Your task to perform on an android device: open app "Booking.com: Hotels and more" (install if not already installed) and enter user name: "misting@outlook.com" and password: "blandly" Image 0: 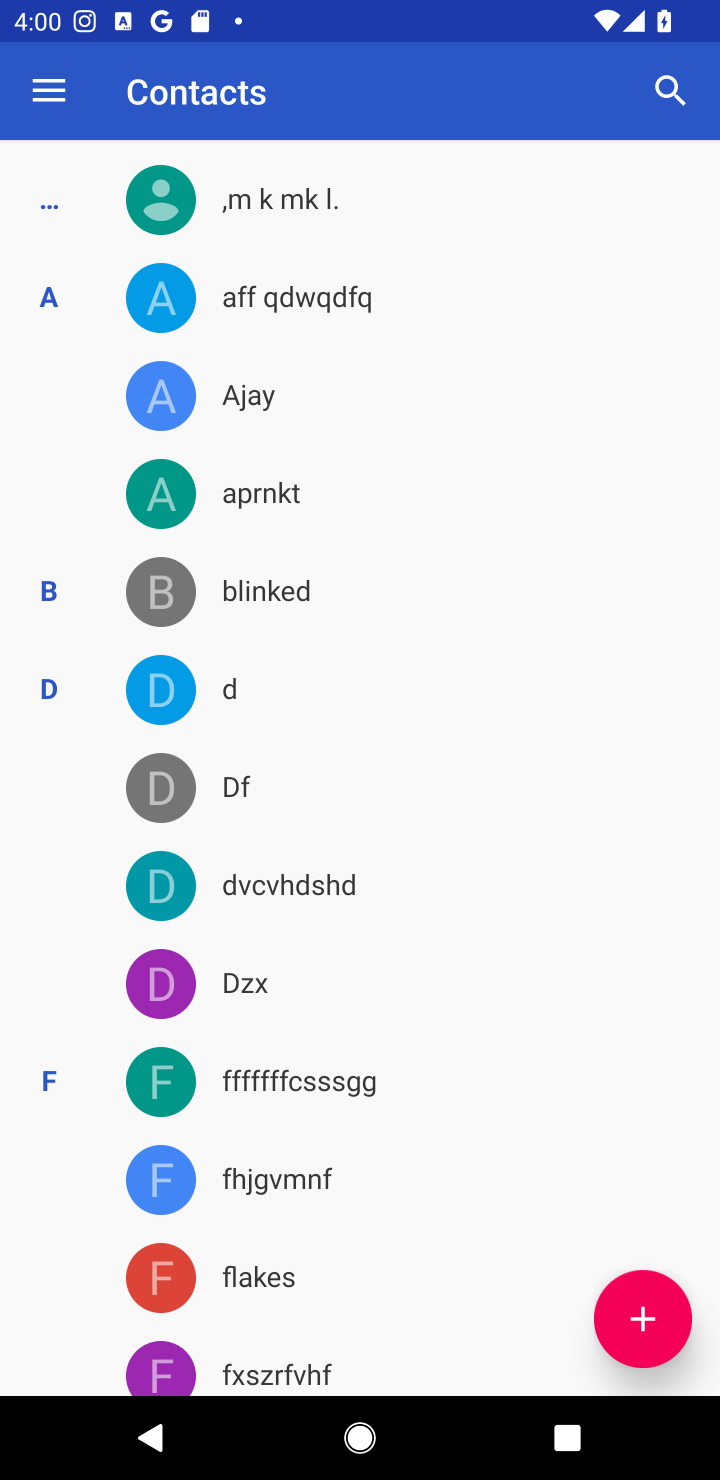
Step 0: press home button
Your task to perform on an android device: open app "Booking.com: Hotels and more" (install if not already installed) and enter user name: "misting@outlook.com" and password: "blandly" Image 1: 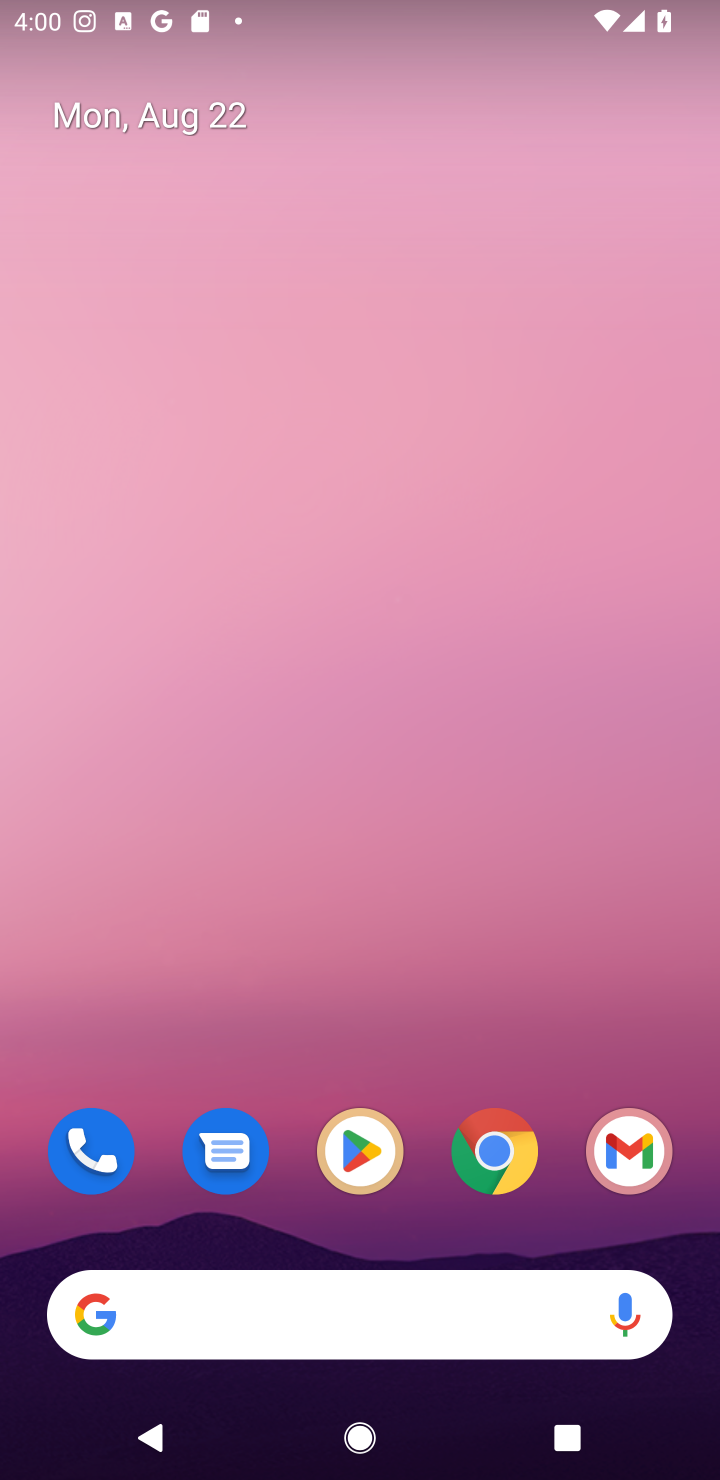
Step 1: click (362, 1153)
Your task to perform on an android device: open app "Booking.com: Hotels and more" (install if not already installed) and enter user name: "misting@outlook.com" and password: "blandly" Image 2: 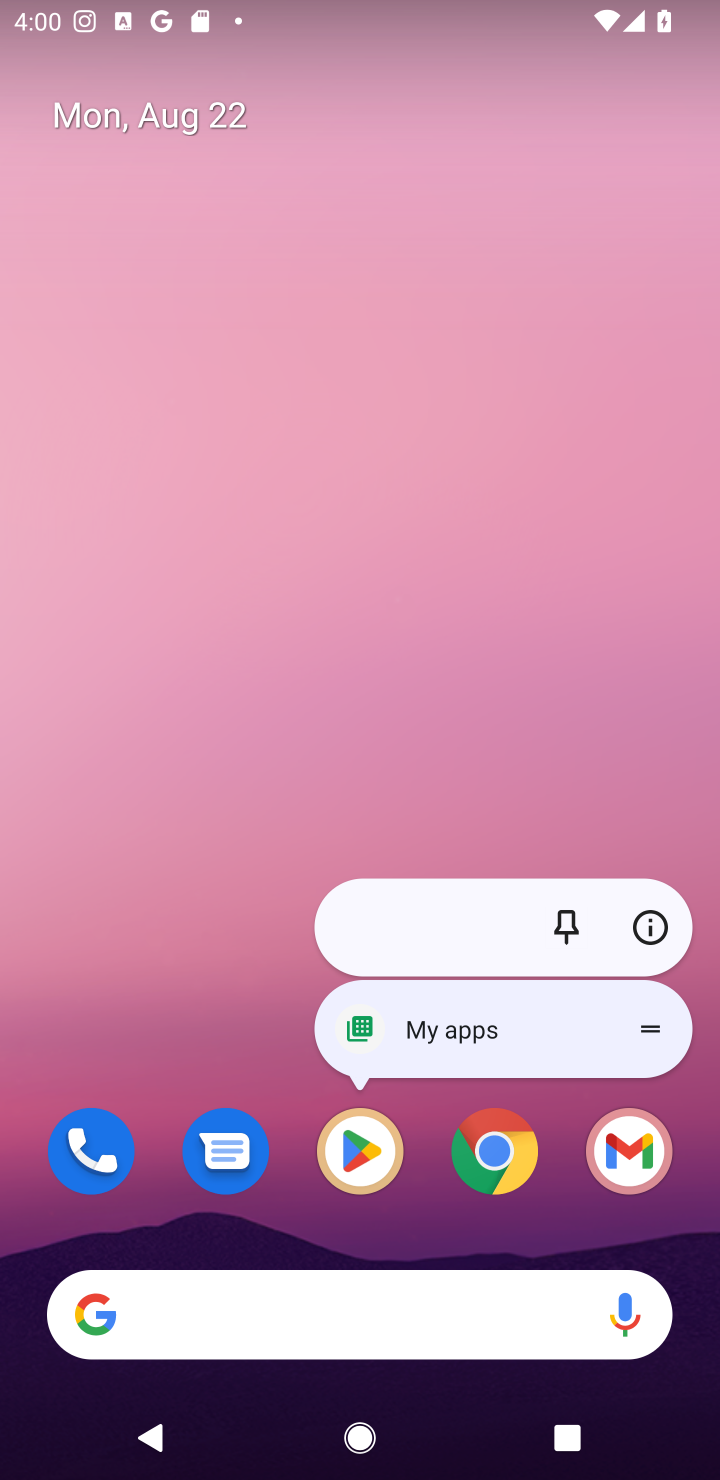
Step 2: click (353, 1157)
Your task to perform on an android device: open app "Booking.com: Hotels and more" (install if not already installed) and enter user name: "misting@outlook.com" and password: "blandly" Image 3: 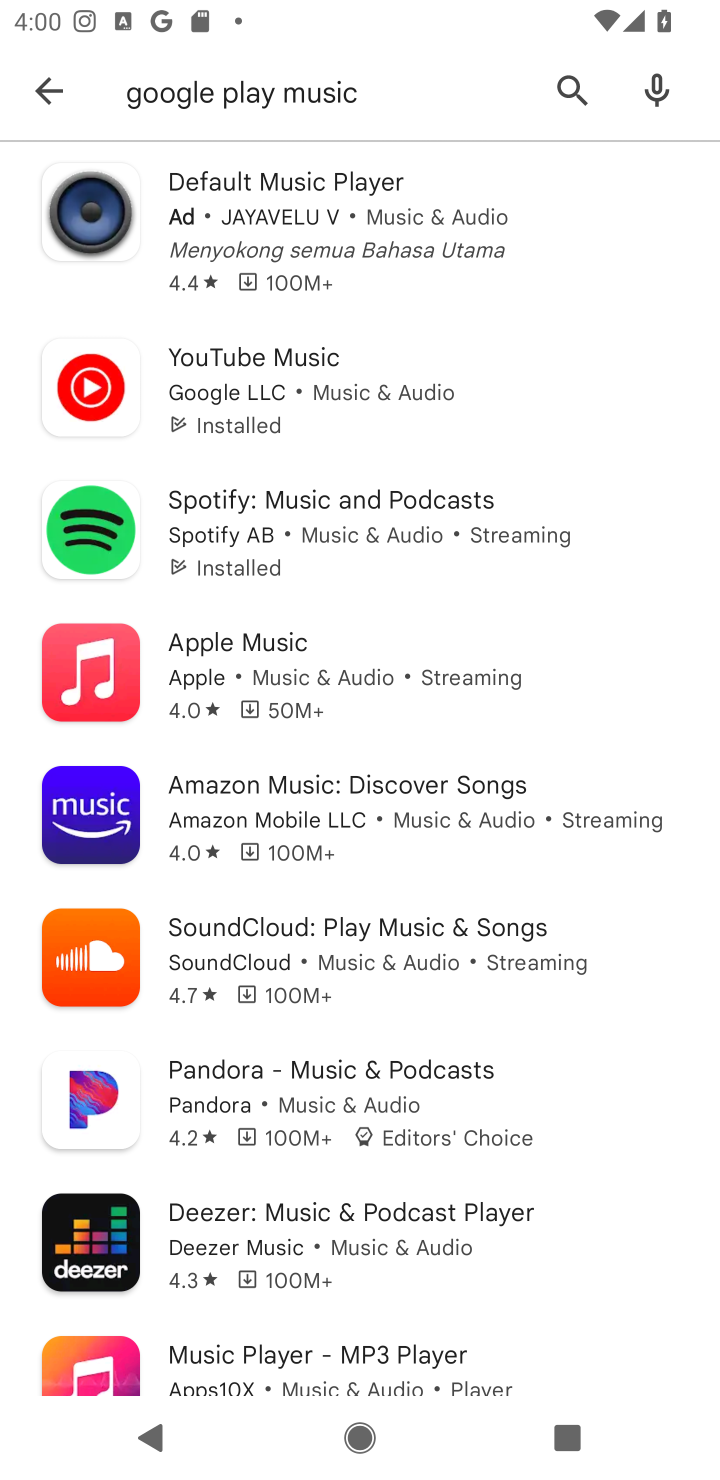
Step 3: click (578, 65)
Your task to perform on an android device: open app "Booking.com: Hotels and more" (install if not already installed) and enter user name: "misting@outlook.com" and password: "blandly" Image 4: 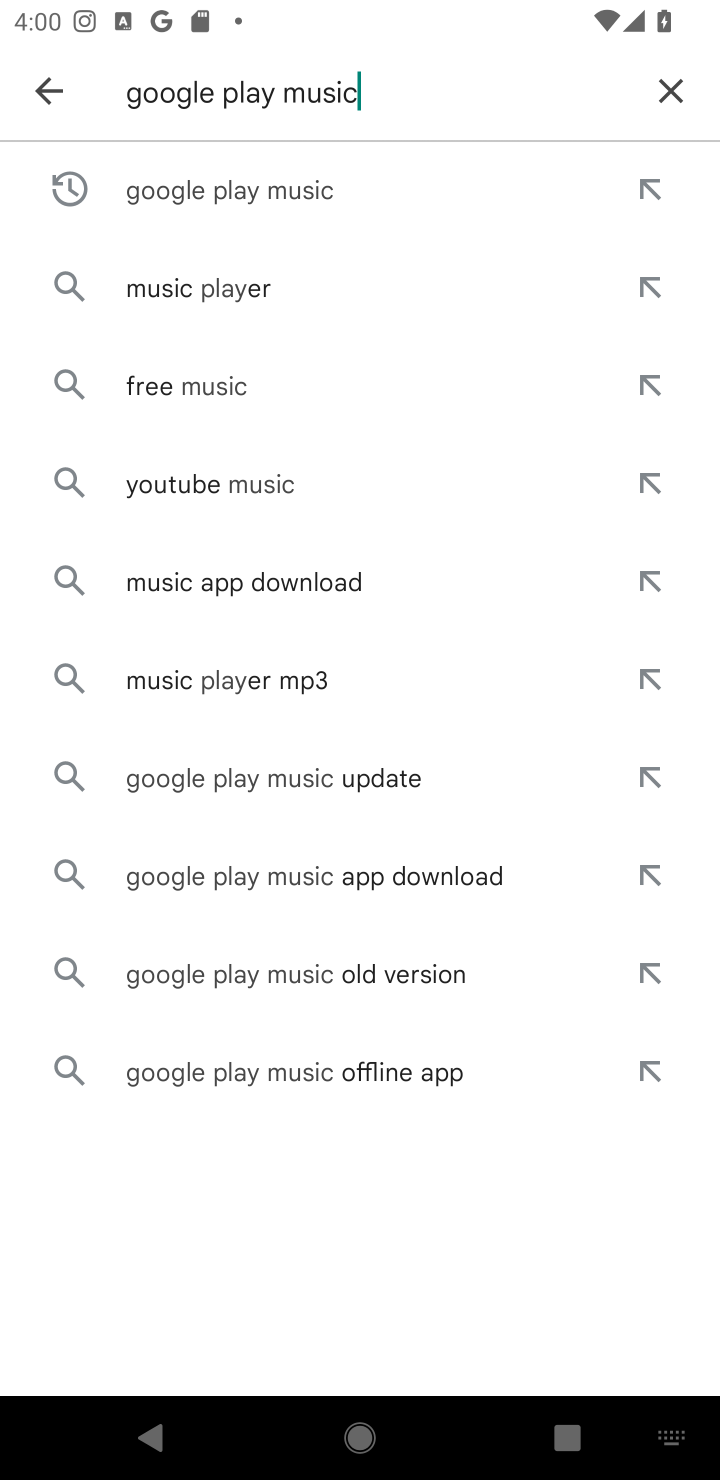
Step 4: click (663, 85)
Your task to perform on an android device: open app "Booking.com: Hotels and more" (install if not already installed) and enter user name: "misting@outlook.com" and password: "blandly" Image 5: 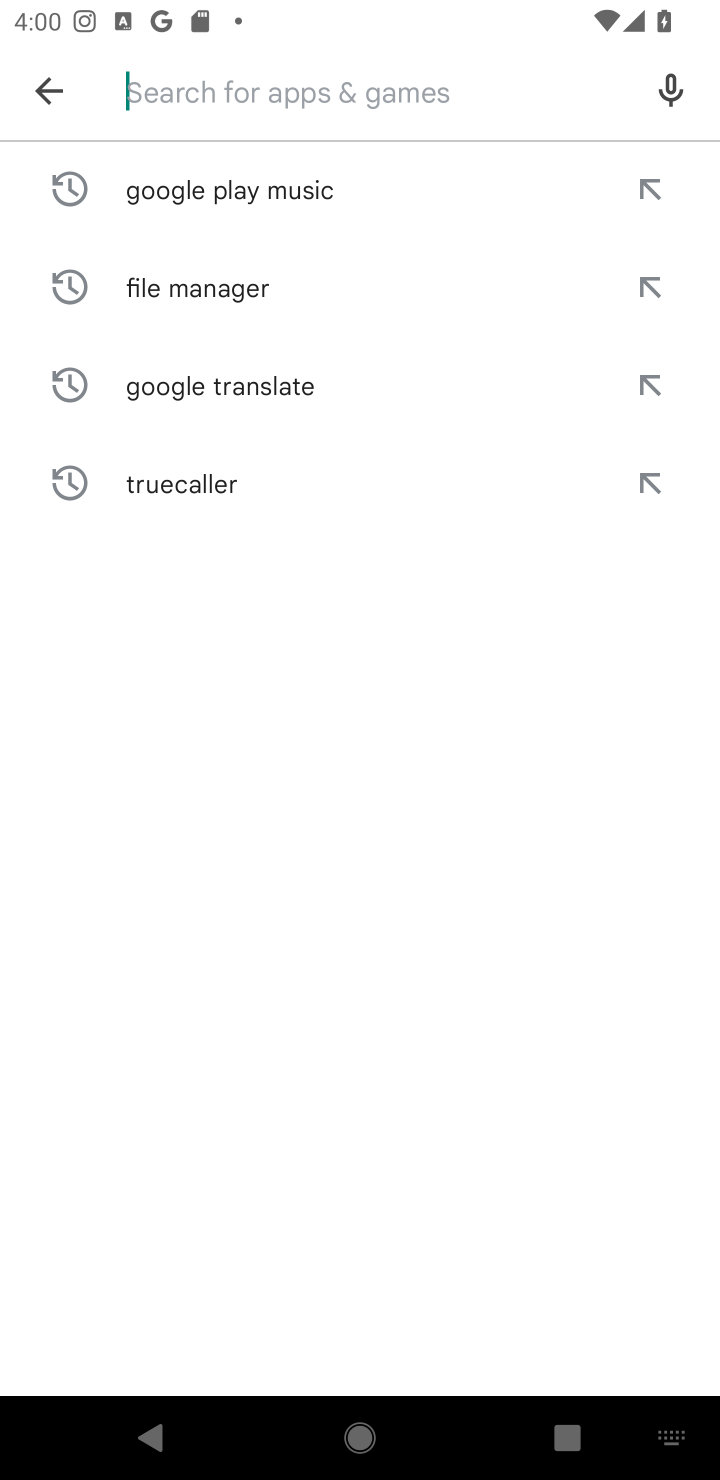
Step 5: type "Booking.com: Hotels and more"
Your task to perform on an android device: open app "Booking.com: Hotels and more" (install if not already installed) and enter user name: "misting@outlook.com" and password: "blandly" Image 6: 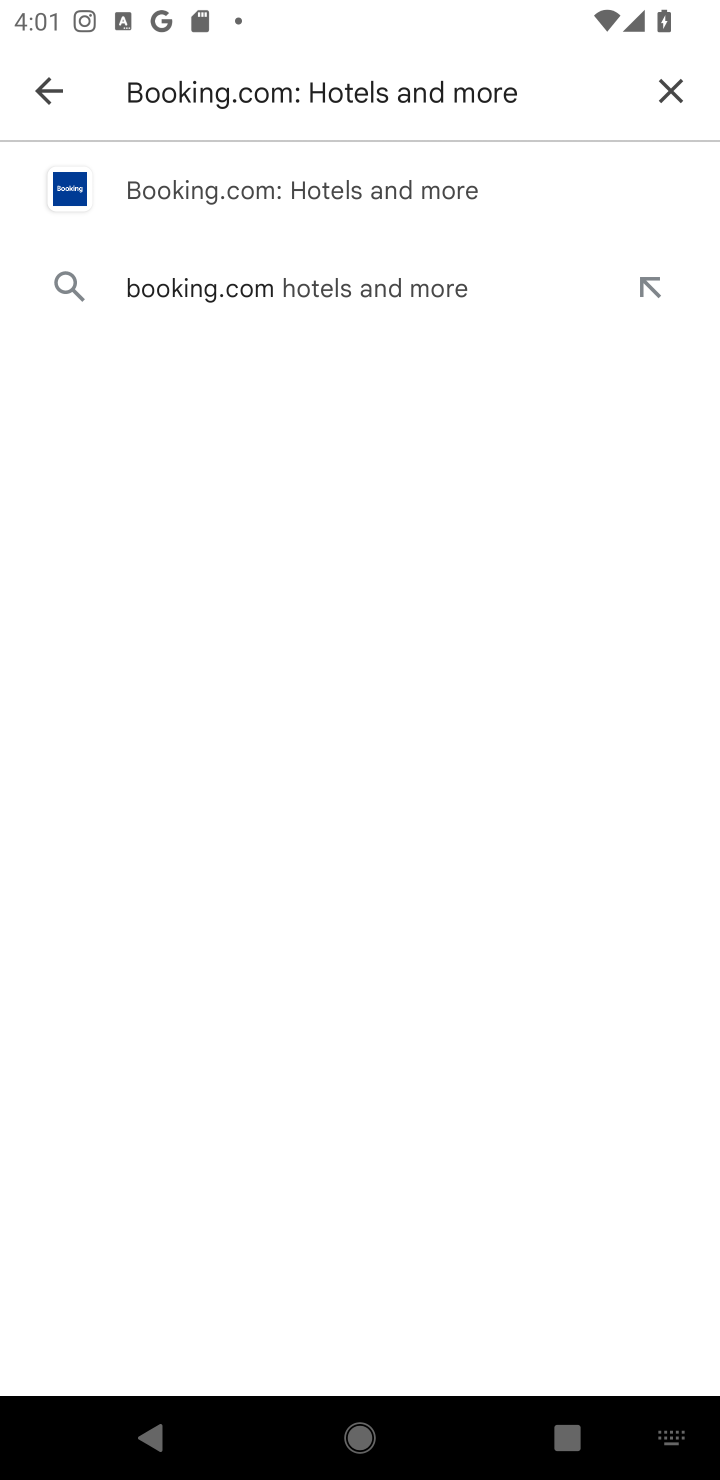
Step 6: click (302, 190)
Your task to perform on an android device: open app "Booking.com: Hotels and more" (install if not already installed) and enter user name: "misting@outlook.com" and password: "blandly" Image 7: 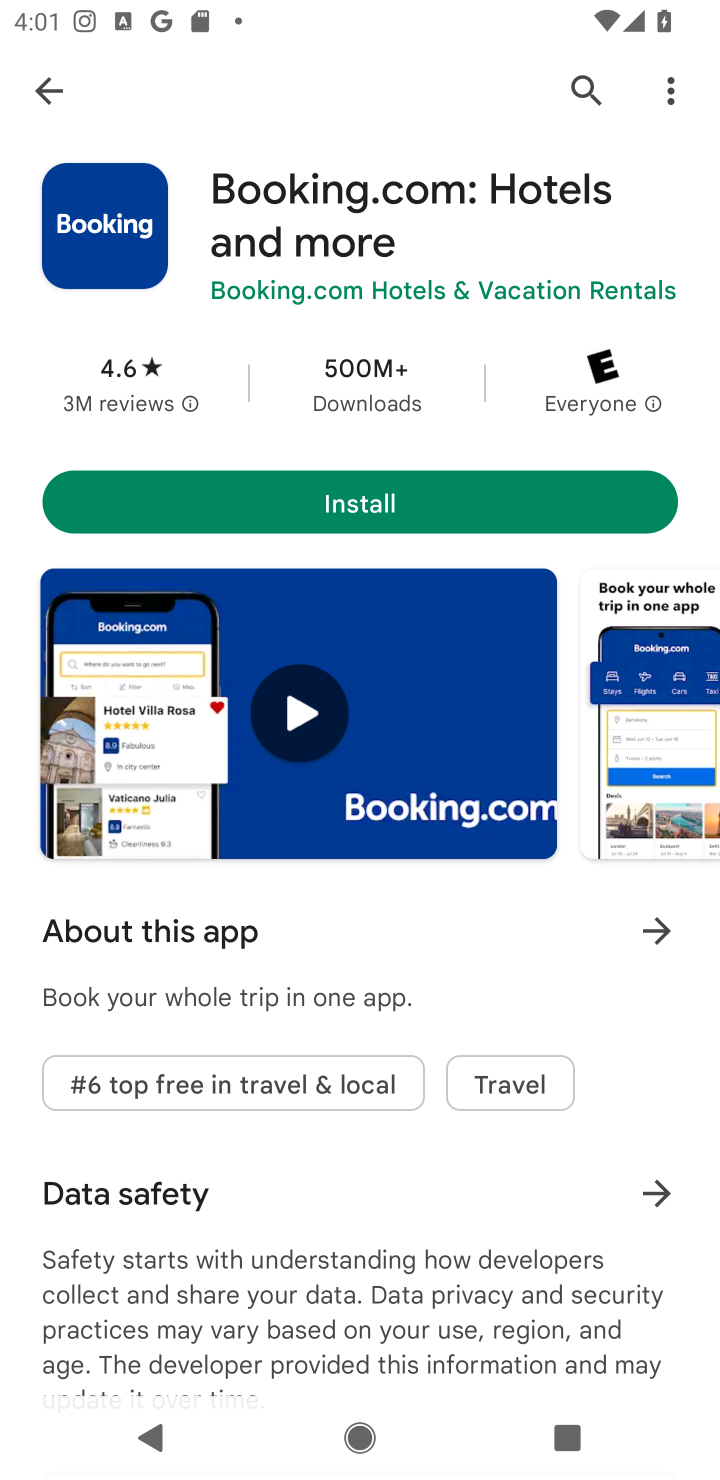
Step 7: click (340, 497)
Your task to perform on an android device: open app "Booking.com: Hotels and more" (install if not already installed) and enter user name: "misting@outlook.com" and password: "blandly" Image 8: 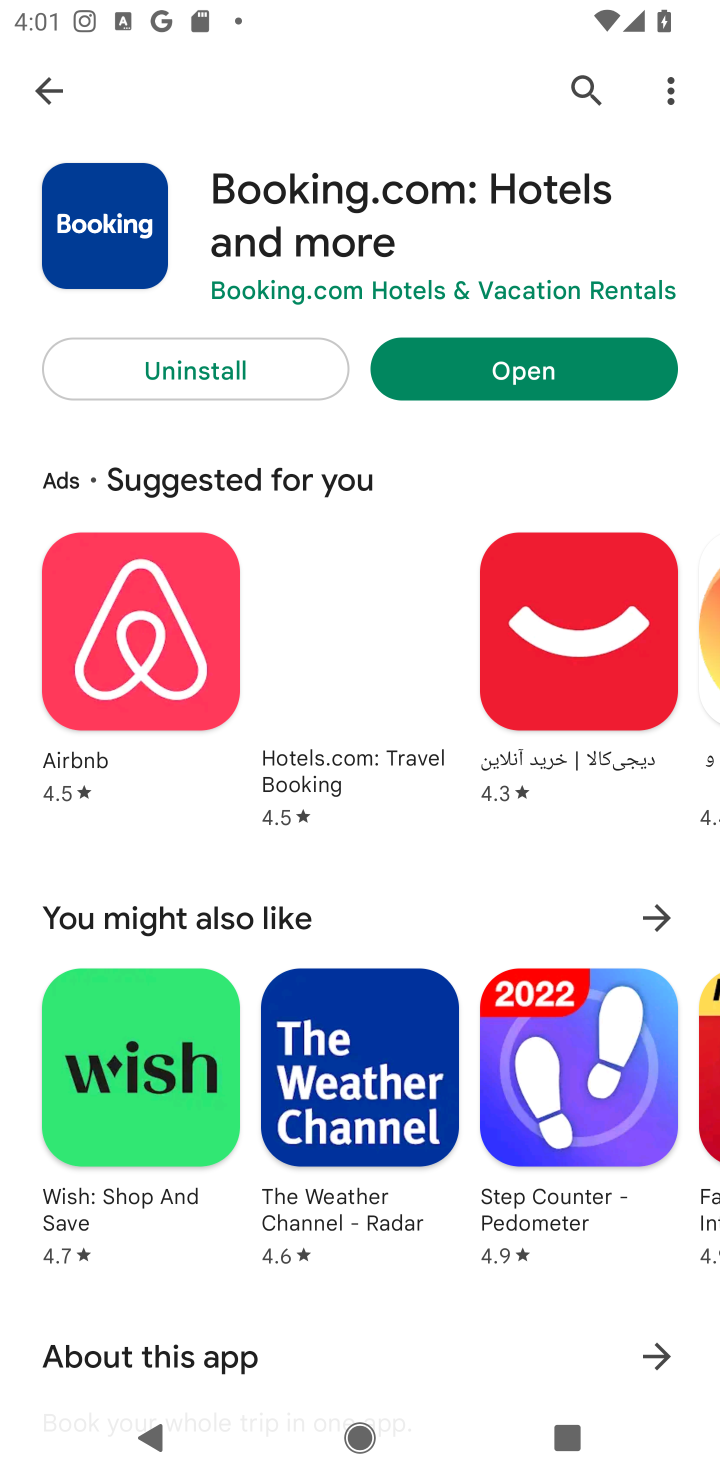
Step 8: click (487, 364)
Your task to perform on an android device: open app "Booking.com: Hotels and more" (install if not already installed) and enter user name: "misting@outlook.com" and password: "blandly" Image 9: 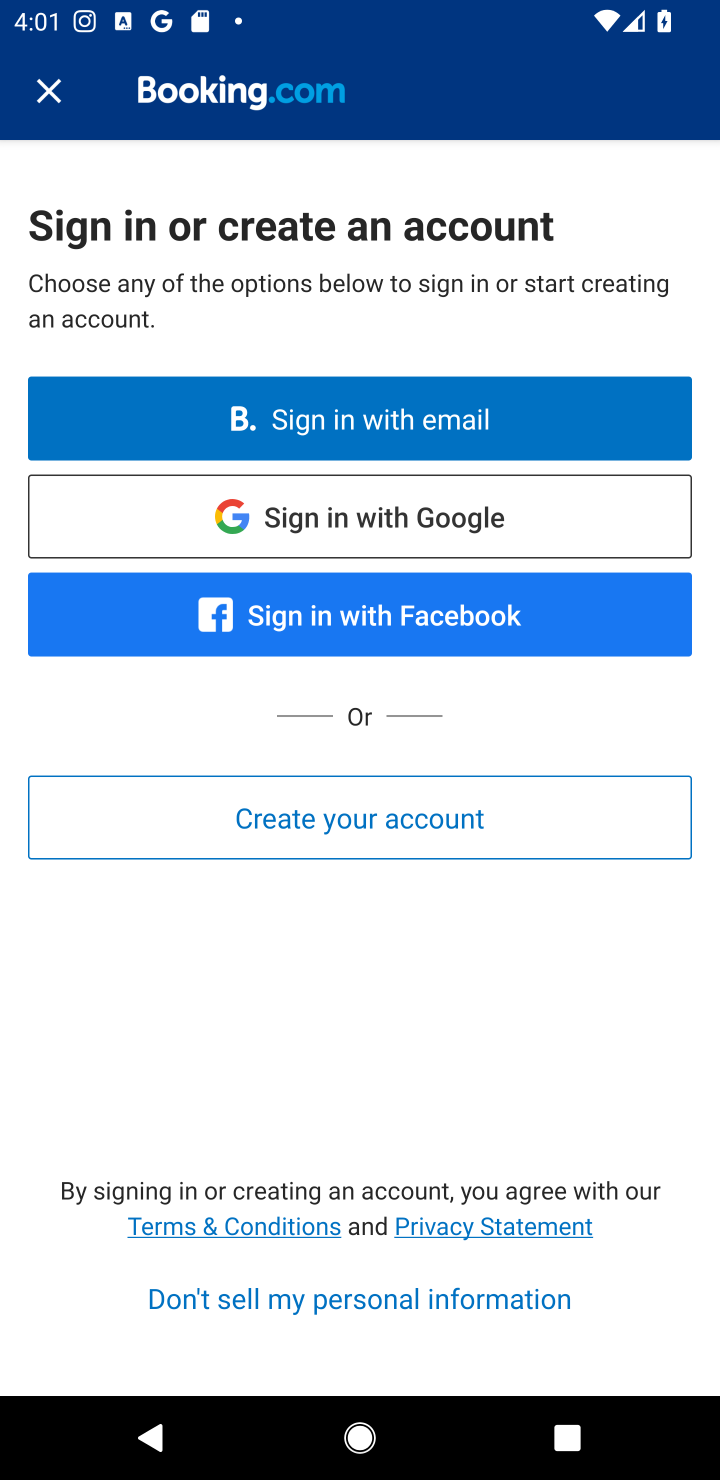
Step 9: click (362, 399)
Your task to perform on an android device: open app "Booking.com: Hotels and more" (install if not already installed) and enter user name: "misting@outlook.com" and password: "blandly" Image 10: 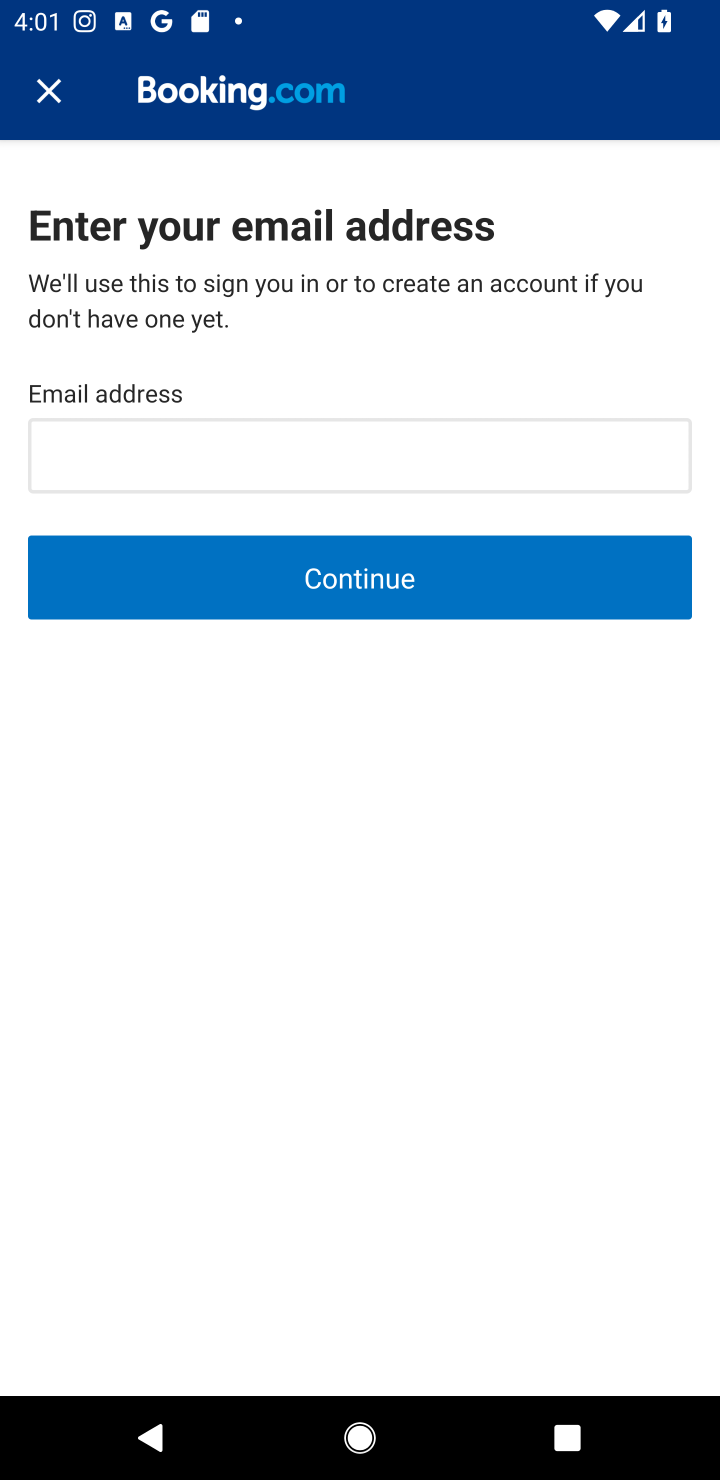
Step 10: click (139, 439)
Your task to perform on an android device: open app "Booking.com: Hotels and more" (install if not already installed) and enter user name: "misting@outlook.com" and password: "blandly" Image 11: 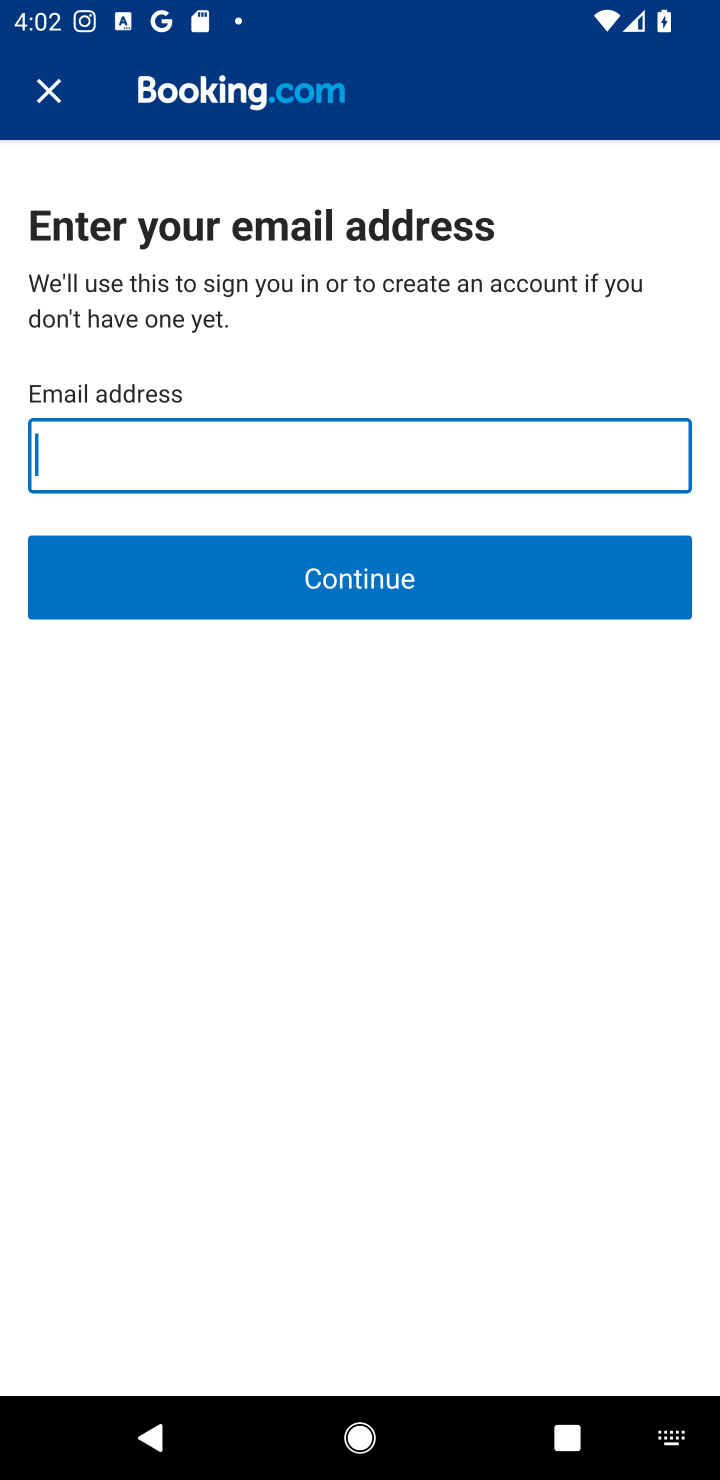
Step 11: type "misting@outlook.com"
Your task to perform on an android device: open app "Booking.com: Hotels and more" (install if not already installed) and enter user name: "misting@outlook.com" and password: "blandly" Image 12: 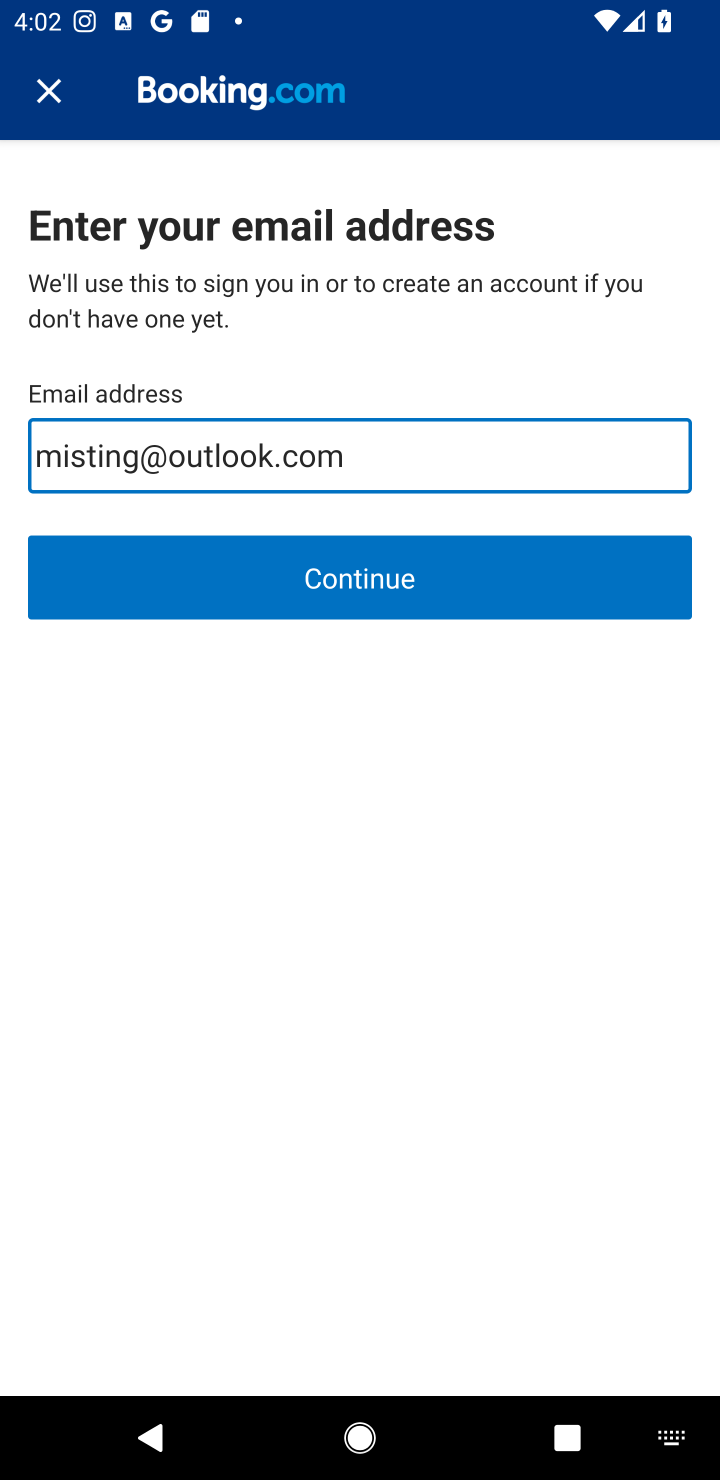
Step 12: click (339, 569)
Your task to perform on an android device: open app "Booking.com: Hotels and more" (install if not already installed) and enter user name: "misting@outlook.com" and password: "blandly" Image 13: 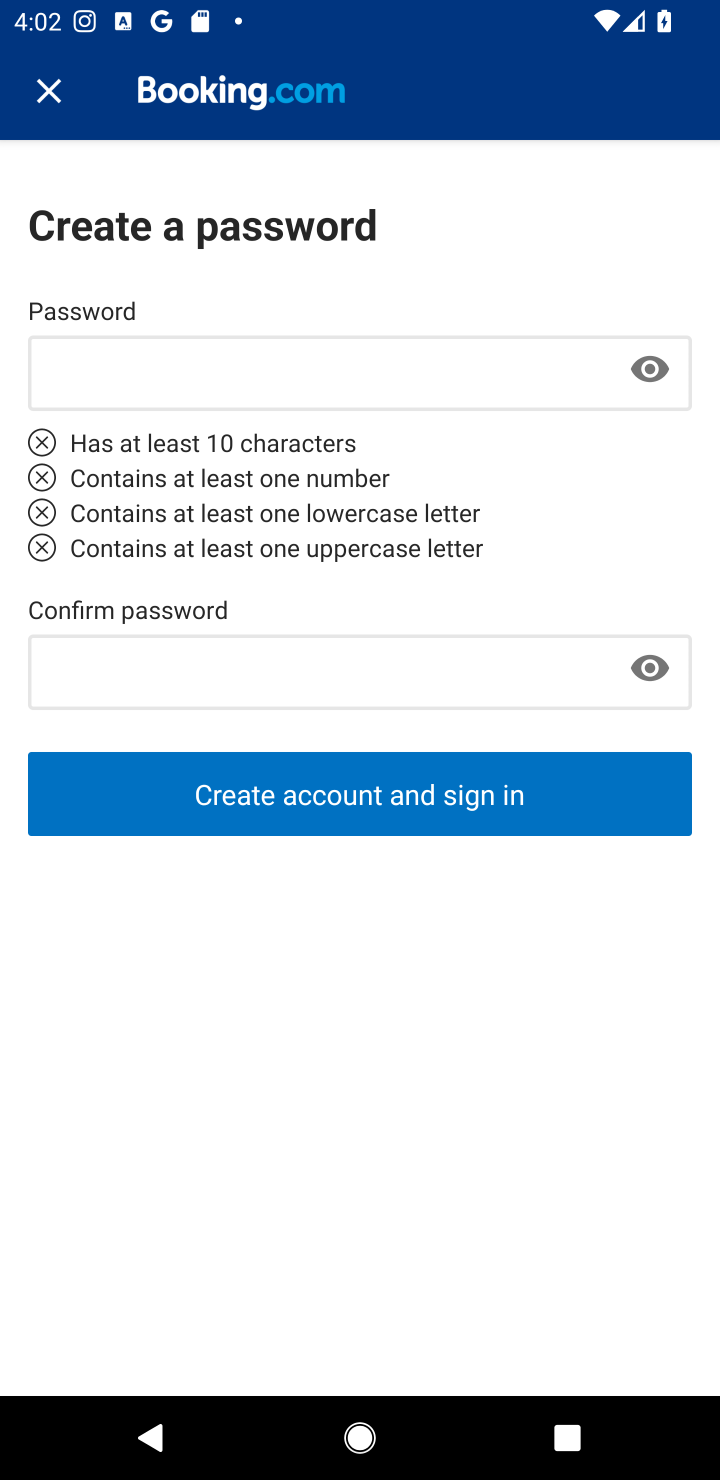
Step 13: click (140, 363)
Your task to perform on an android device: open app "Booking.com: Hotels and more" (install if not already installed) and enter user name: "misting@outlook.com" and password: "blandly" Image 14: 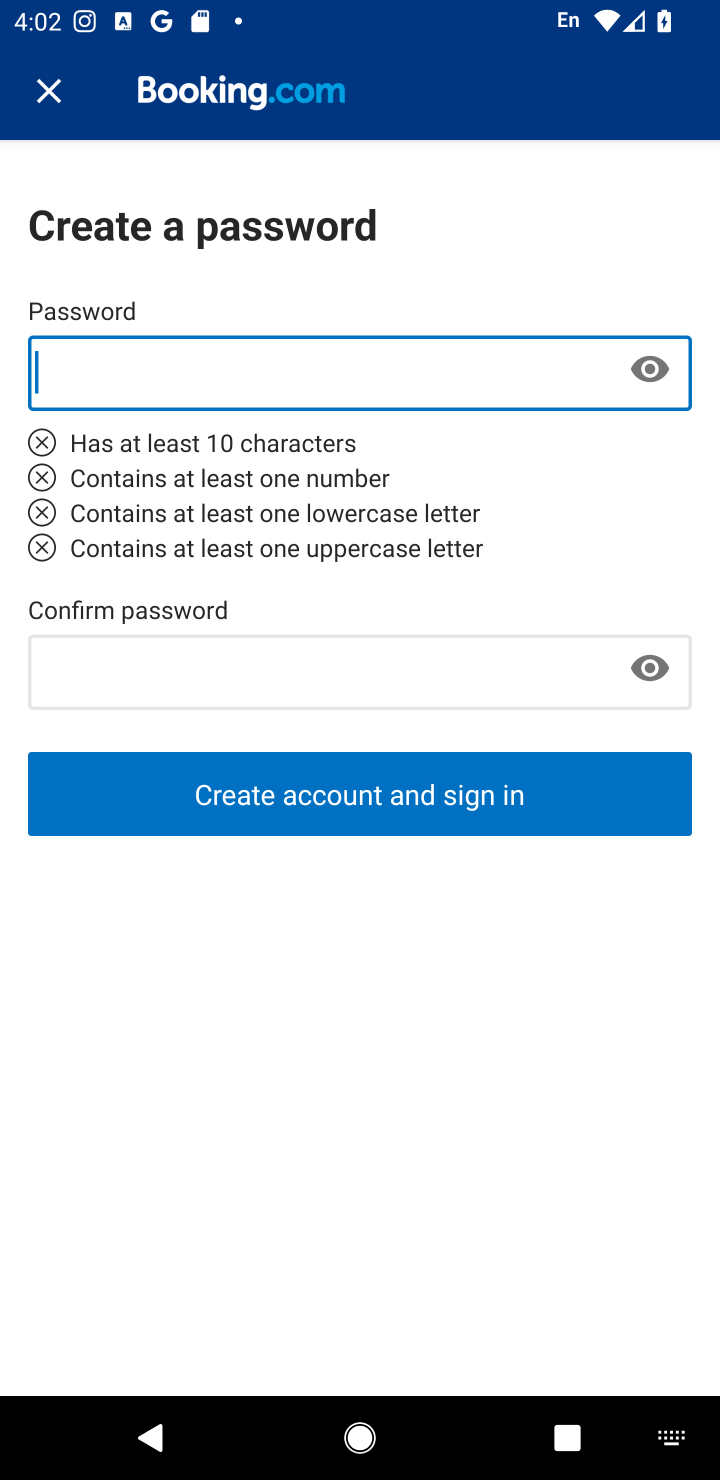
Step 14: type "blandly"
Your task to perform on an android device: open app "Booking.com: Hotels and more" (install if not already installed) and enter user name: "misting@outlook.com" and password: "blandly" Image 15: 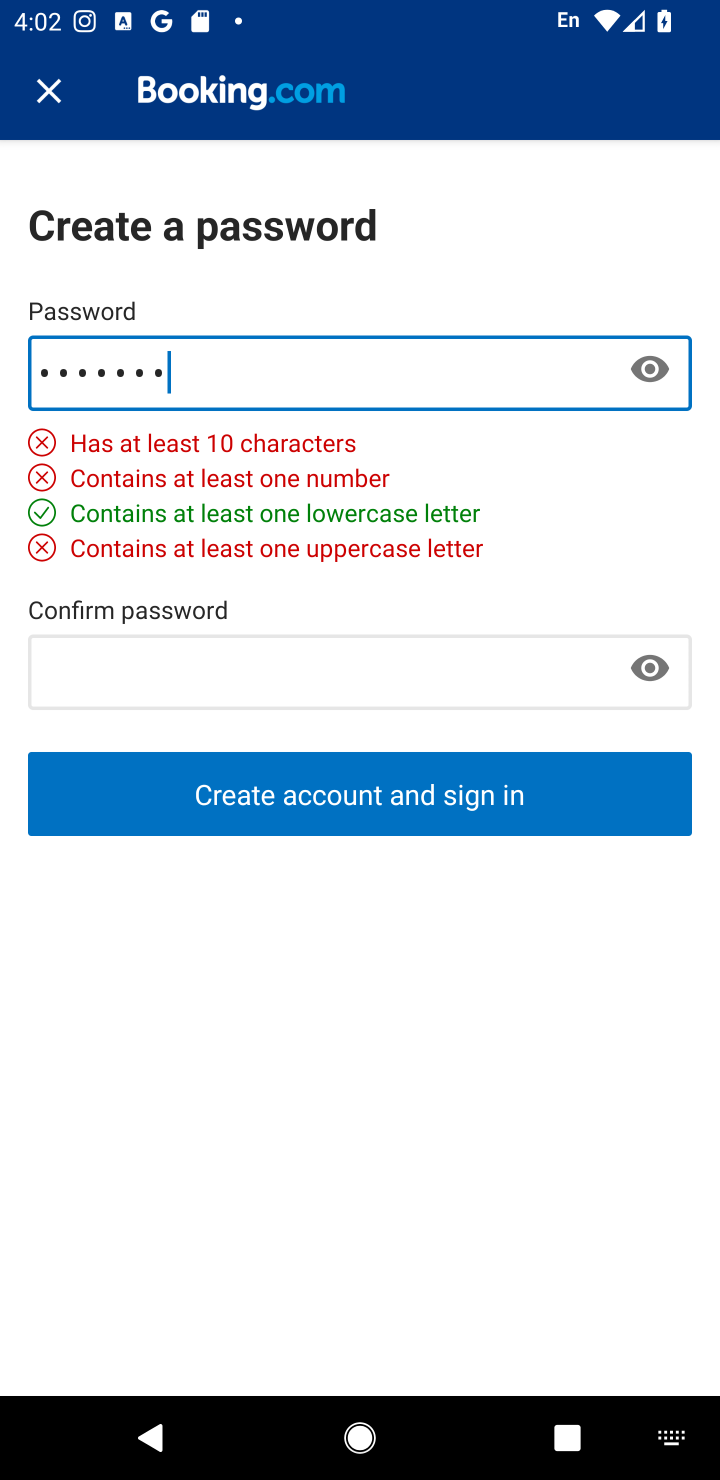
Step 15: task complete